Your task to perform on an android device: manage bookmarks in the chrome app Image 0: 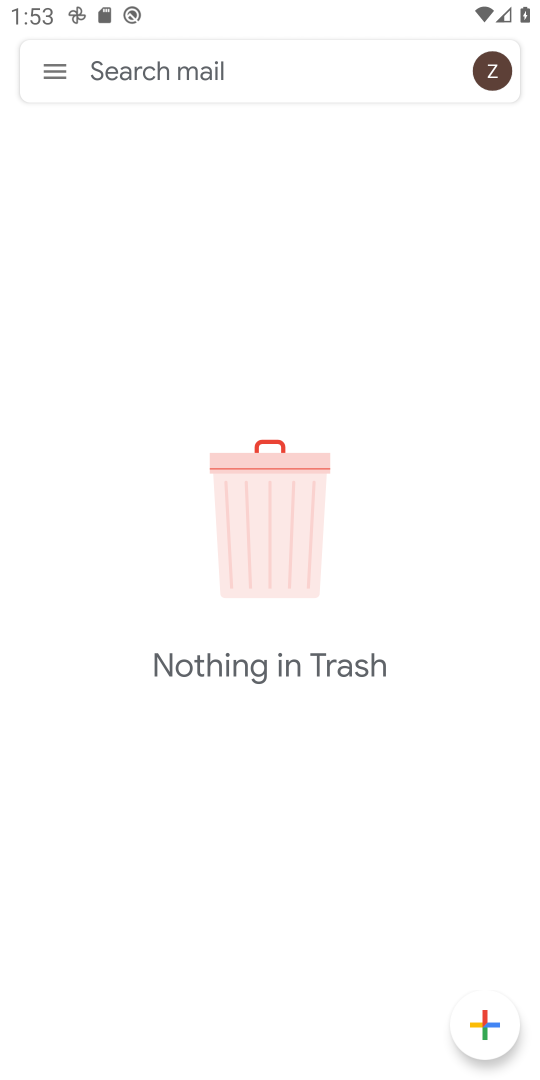
Step 0: press home button
Your task to perform on an android device: manage bookmarks in the chrome app Image 1: 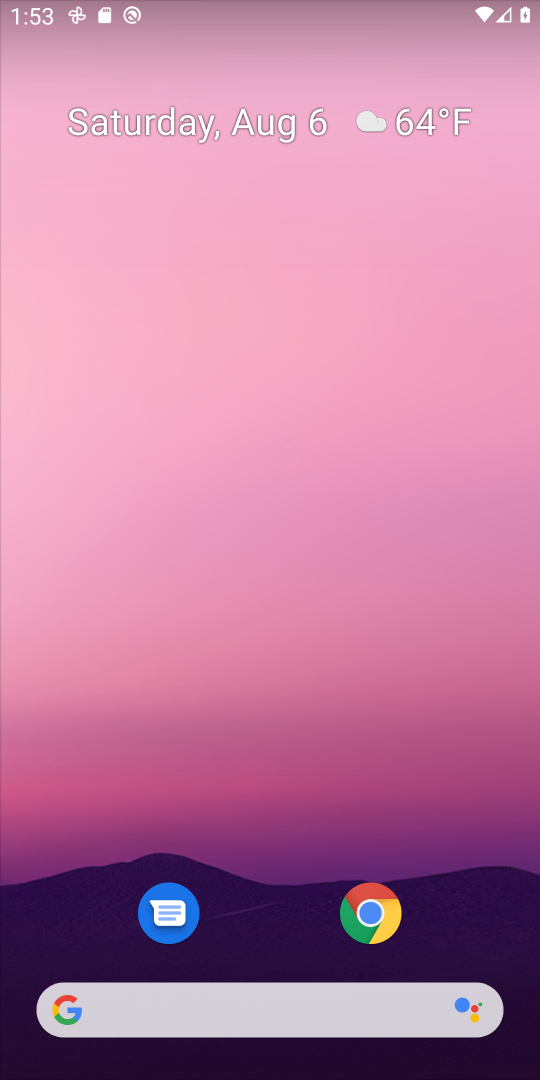
Step 1: drag from (460, 906) to (507, 276)
Your task to perform on an android device: manage bookmarks in the chrome app Image 2: 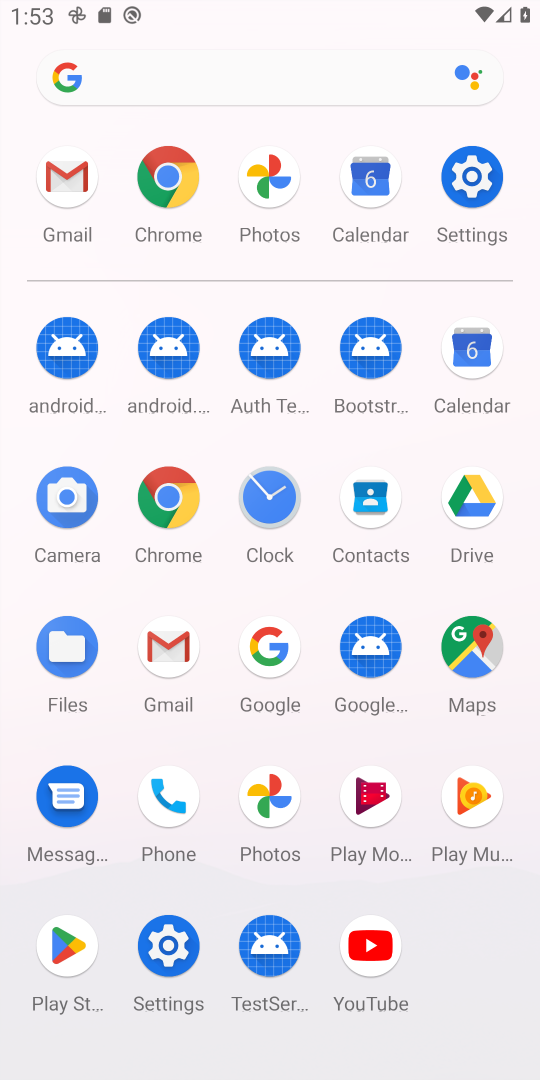
Step 2: click (165, 498)
Your task to perform on an android device: manage bookmarks in the chrome app Image 3: 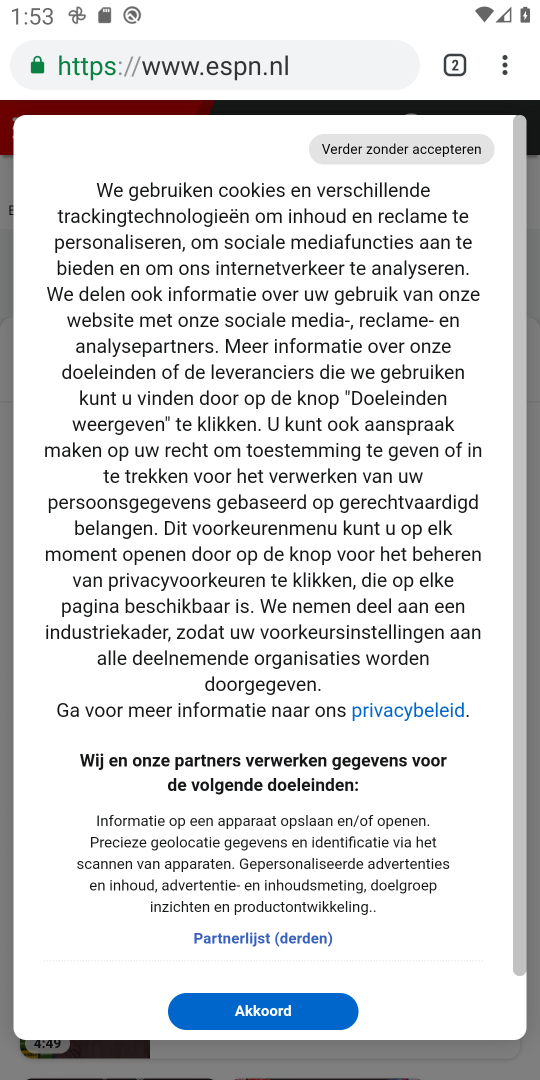
Step 3: click (502, 63)
Your task to perform on an android device: manage bookmarks in the chrome app Image 4: 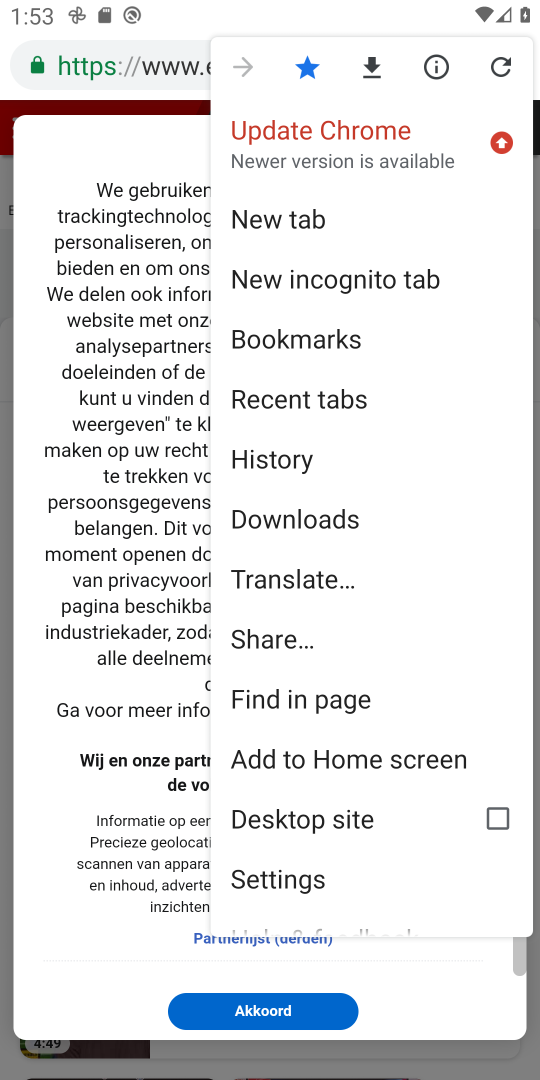
Step 4: click (322, 343)
Your task to perform on an android device: manage bookmarks in the chrome app Image 5: 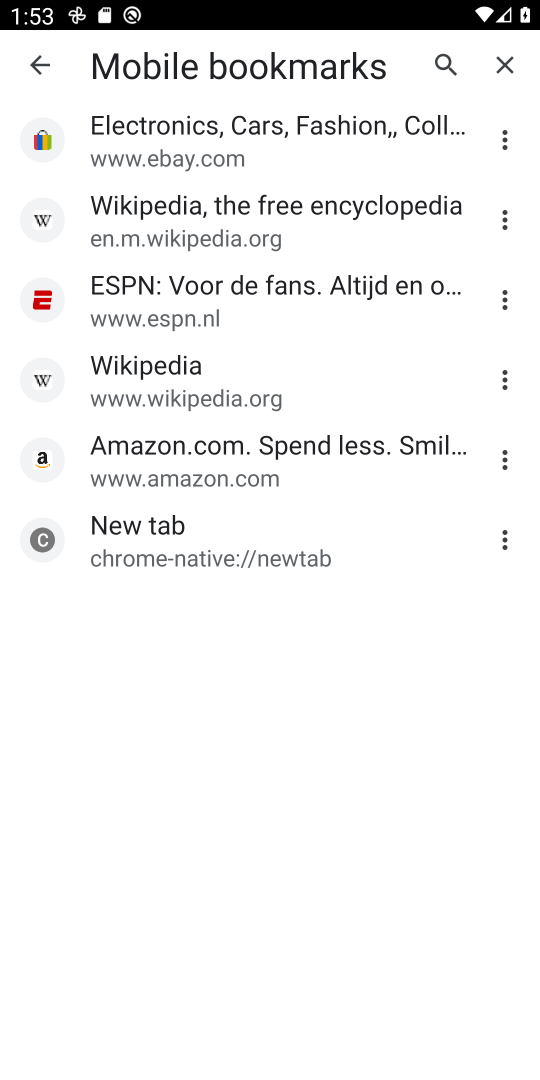
Step 5: click (515, 374)
Your task to perform on an android device: manage bookmarks in the chrome app Image 6: 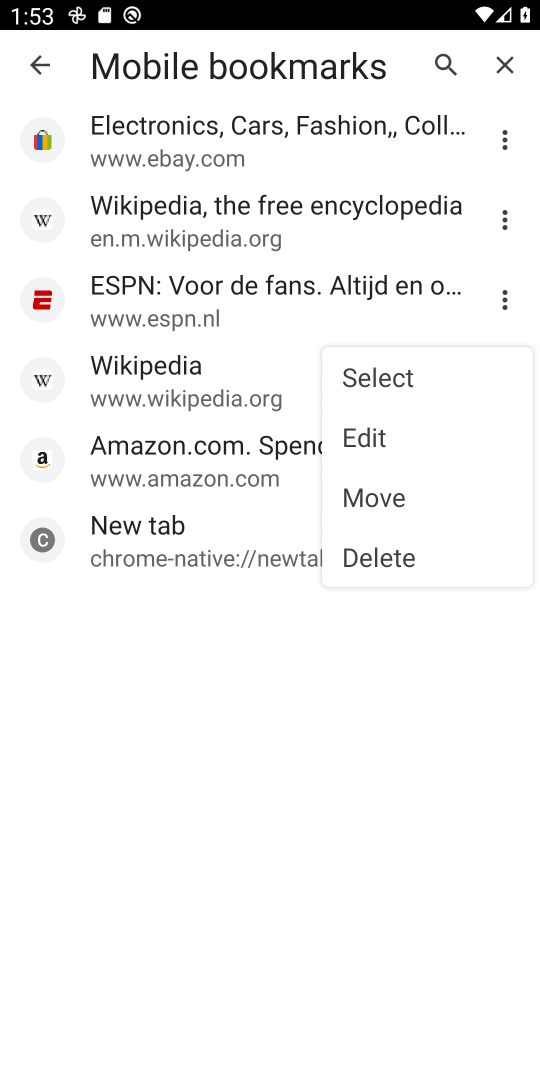
Step 6: click (387, 438)
Your task to perform on an android device: manage bookmarks in the chrome app Image 7: 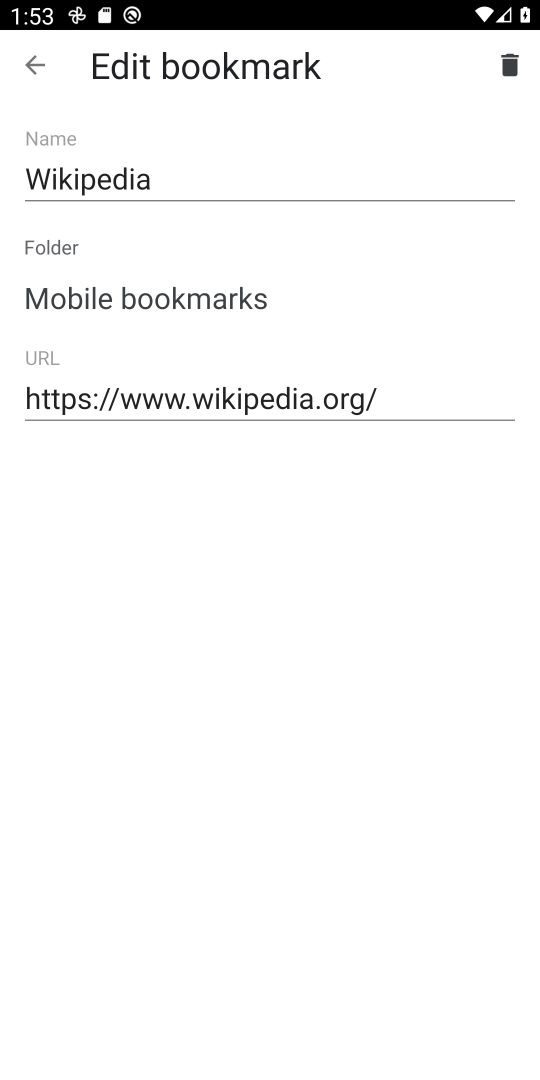
Step 7: click (218, 170)
Your task to perform on an android device: manage bookmarks in the chrome app Image 8: 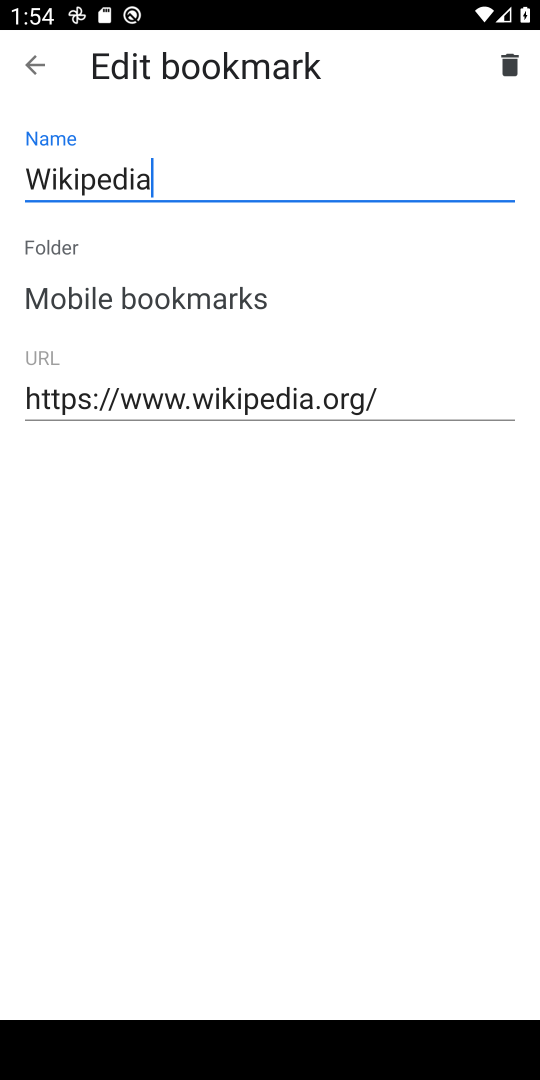
Step 8: type "a"
Your task to perform on an android device: manage bookmarks in the chrome app Image 9: 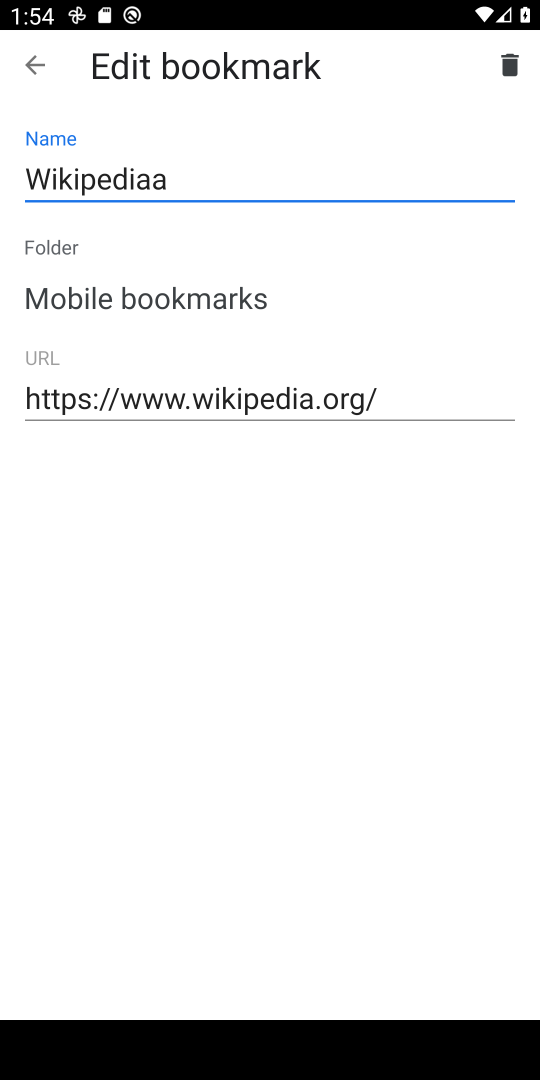
Step 9: click (36, 56)
Your task to perform on an android device: manage bookmarks in the chrome app Image 10: 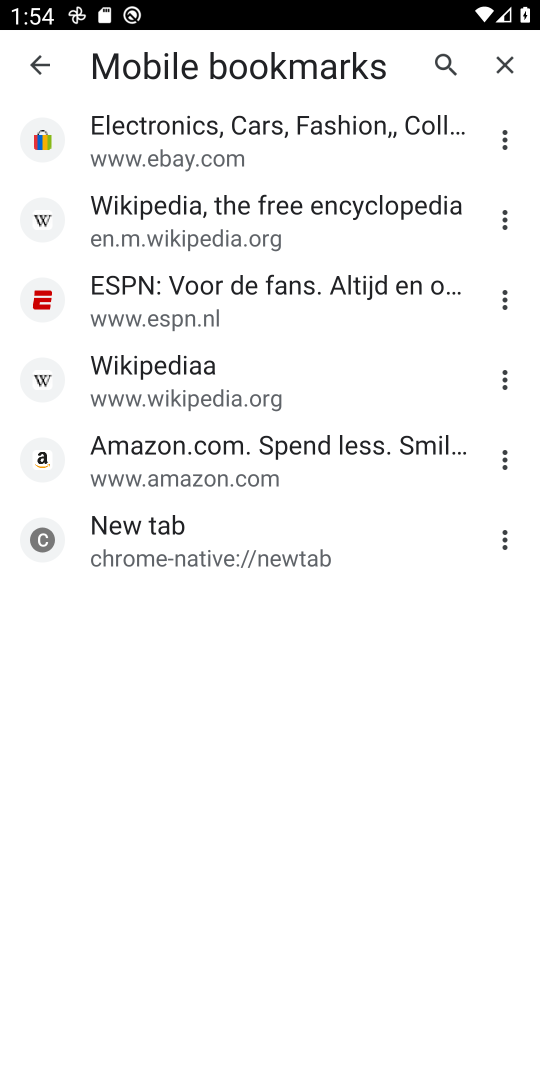
Step 10: task complete